Your task to perform on an android device: Open wifi settings Image 0: 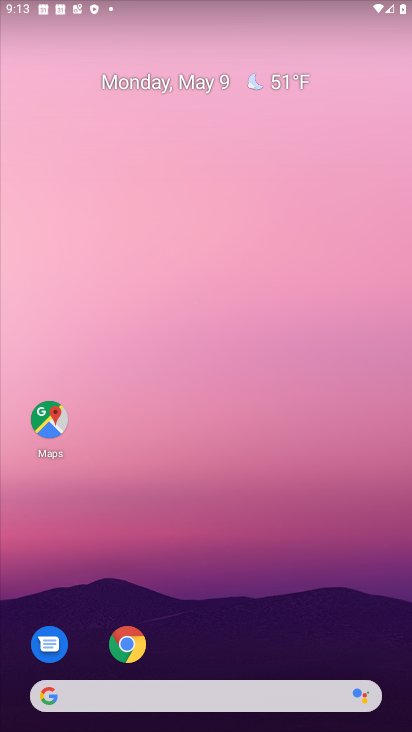
Step 0: drag from (211, 661) to (126, 12)
Your task to perform on an android device: Open wifi settings Image 1: 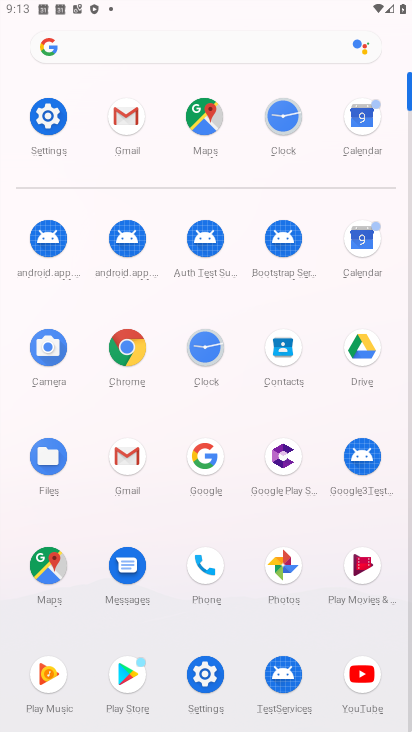
Step 1: click (63, 110)
Your task to perform on an android device: Open wifi settings Image 2: 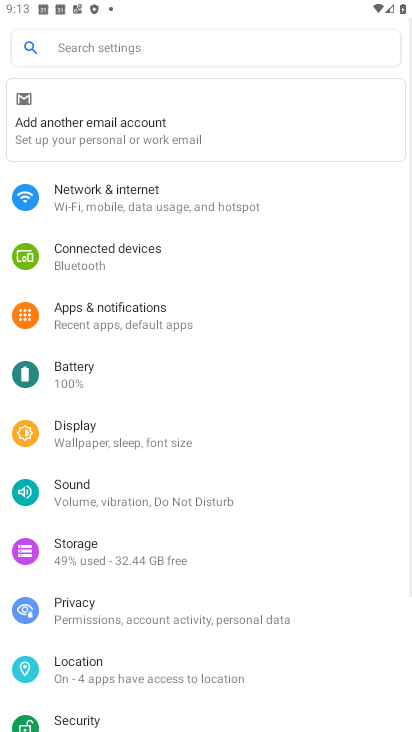
Step 2: click (109, 194)
Your task to perform on an android device: Open wifi settings Image 3: 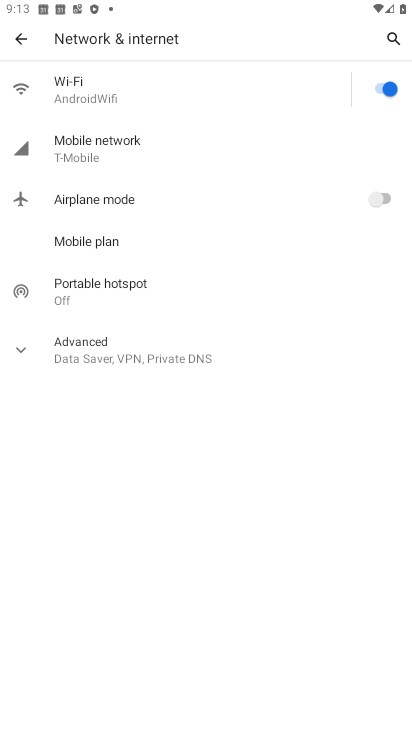
Step 3: click (100, 99)
Your task to perform on an android device: Open wifi settings Image 4: 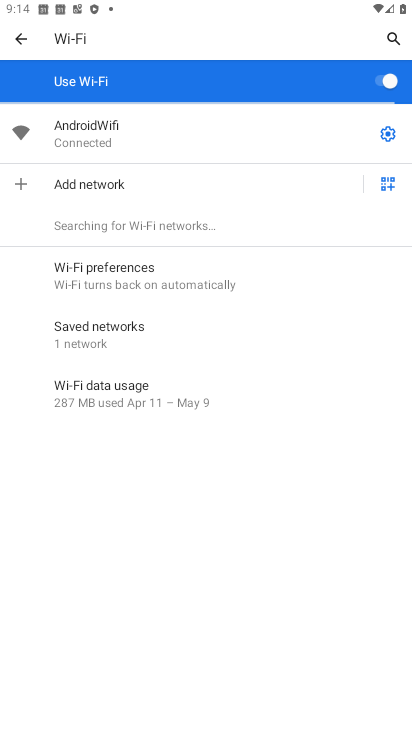
Step 4: task complete